Your task to perform on an android device: Open Google Chrome Image 0: 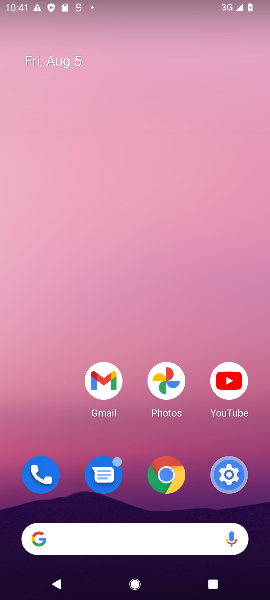
Step 0: click (170, 484)
Your task to perform on an android device: Open Google Chrome Image 1: 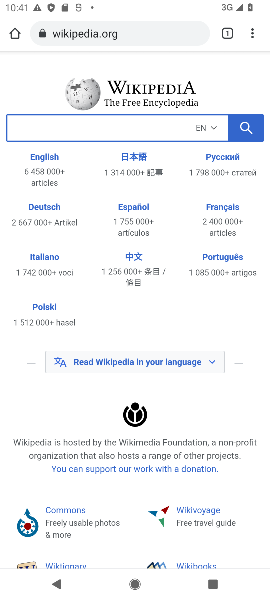
Step 1: task complete